Your task to perform on an android device: Open Android settings Image 0: 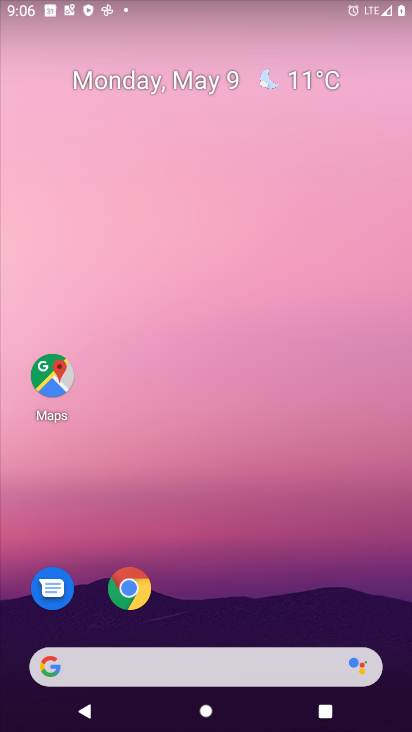
Step 0: drag from (338, 609) to (259, 63)
Your task to perform on an android device: Open Android settings Image 1: 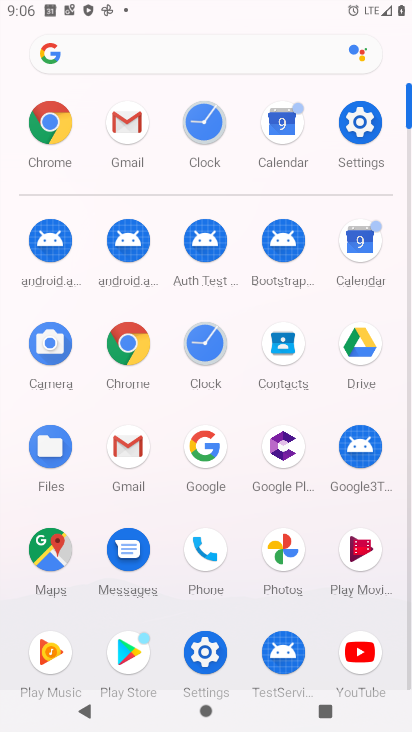
Step 1: click (213, 657)
Your task to perform on an android device: Open Android settings Image 2: 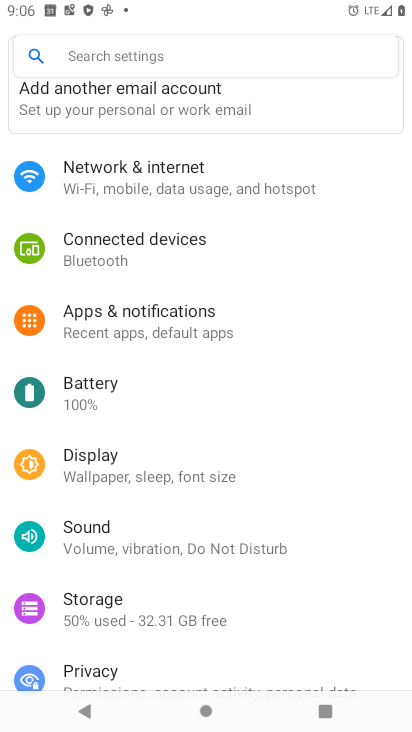
Step 2: drag from (199, 612) to (208, 339)
Your task to perform on an android device: Open Android settings Image 3: 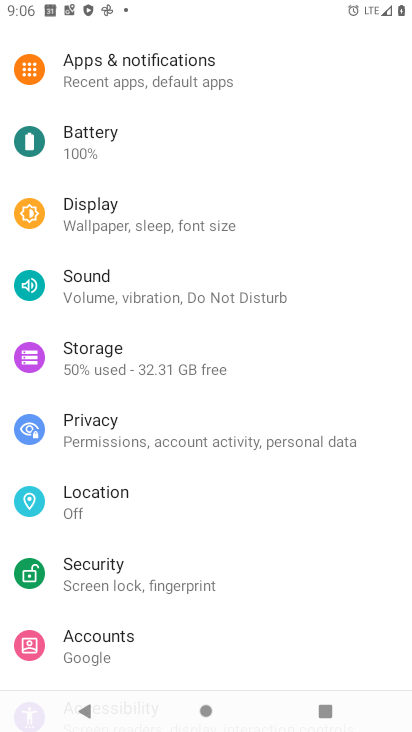
Step 3: drag from (172, 634) to (216, 94)
Your task to perform on an android device: Open Android settings Image 4: 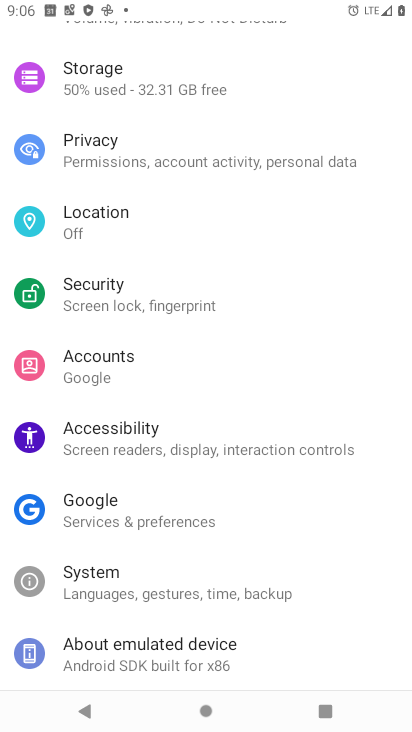
Step 4: click (175, 627)
Your task to perform on an android device: Open Android settings Image 5: 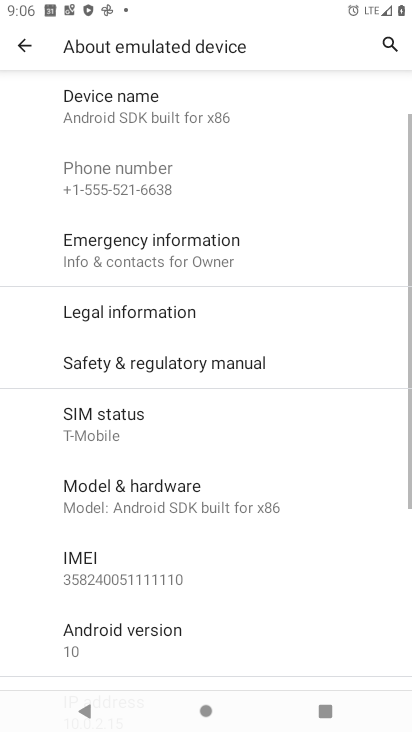
Step 5: click (123, 630)
Your task to perform on an android device: Open Android settings Image 6: 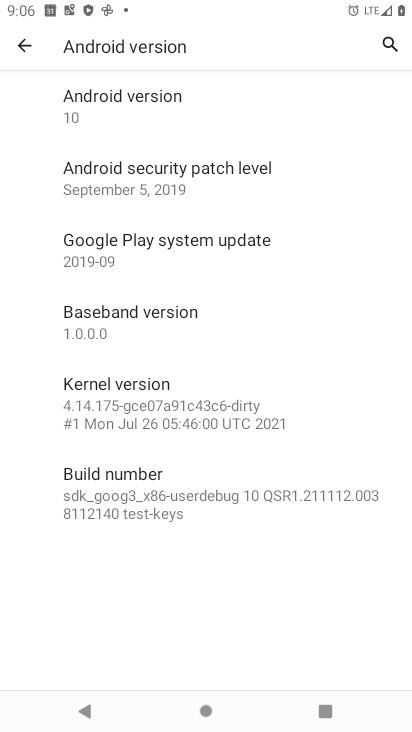
Step 6: task complete